Your task to perform on an android device: change notification settings in the gmail app Image 0: 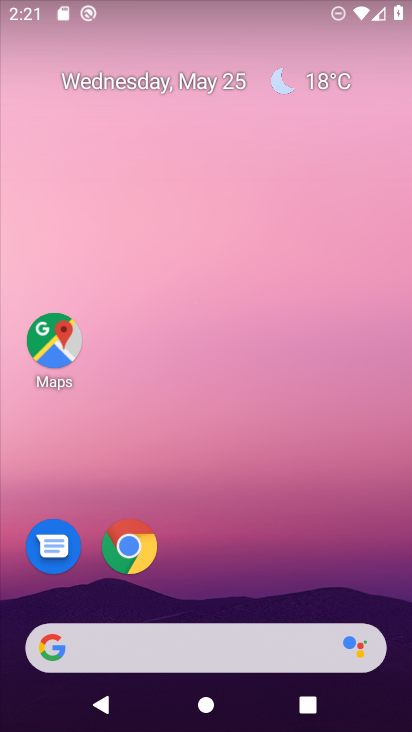
Step 0: drag from (206, 598) to (237, 3)
Your task to perform on an android device: change notification settings in the gmail app Image 1: 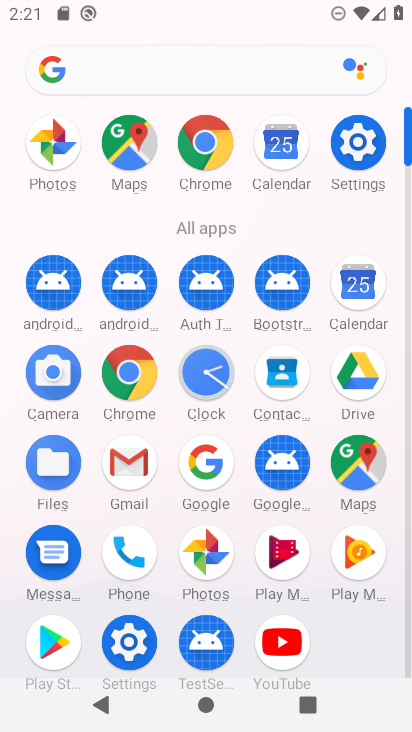
Step 1: click (130, 468)
Your task to perform on an android device: change notification settings in the gmail app Image 2: 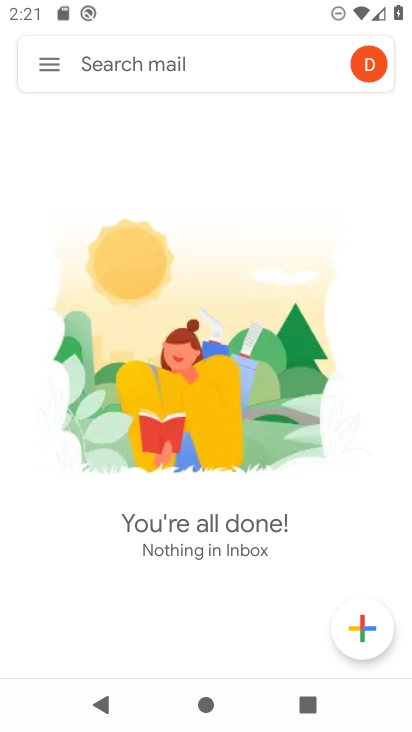
Step 2: click (40, 72)
Your task to perform on an android device: change notification settings in the gmail app Image 3: 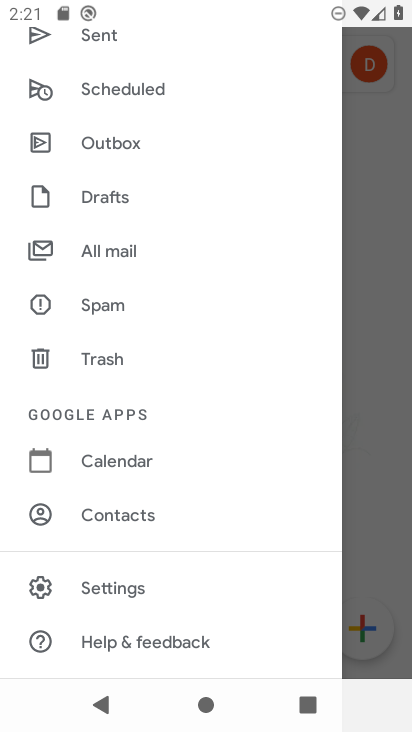
Step 3: drag from (122, 572) to (122, 304)
Your task to perform on an android device: change notification settings in the gmail app Image 4: 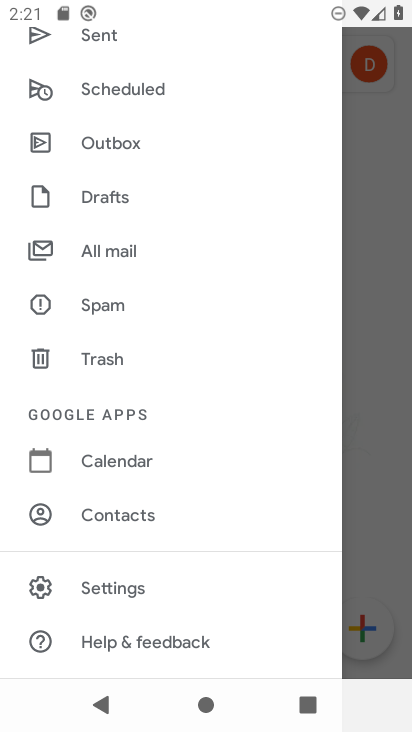
Step 4: click (107, 590)
Your task to perform on an android device: change notification settings in the gmail app Image 5: 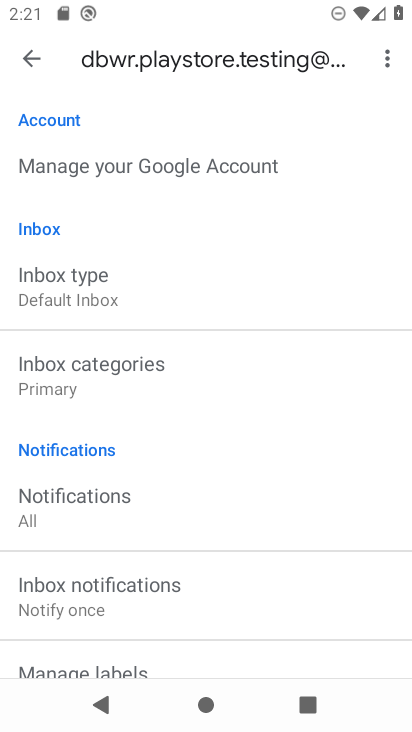
Step 5: drag from (99, 570) to (133, 341)
Your task to perform on an android device: change notification settings in the gmail app Image 6: 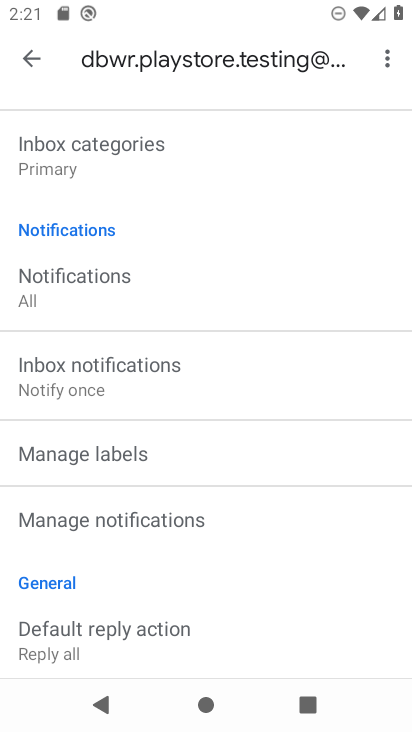
Step 6: click (28, 64)
Your task to perform on an android device: change notification settings in the gmail app Image 7: 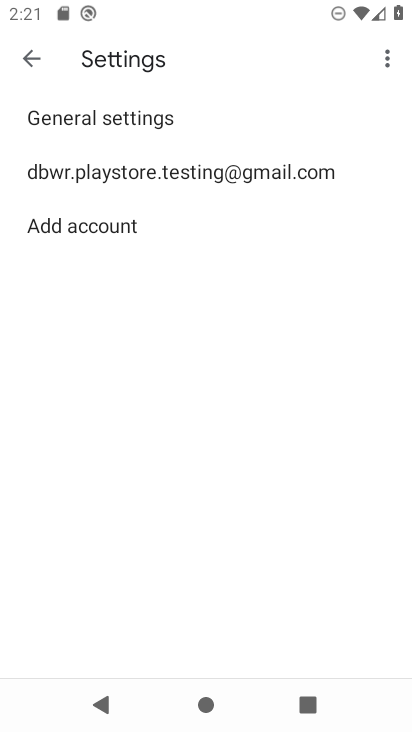
Step 7: click (118, 120)
Your task to perform on an android device: change notification settings in the gmail app Image 8: 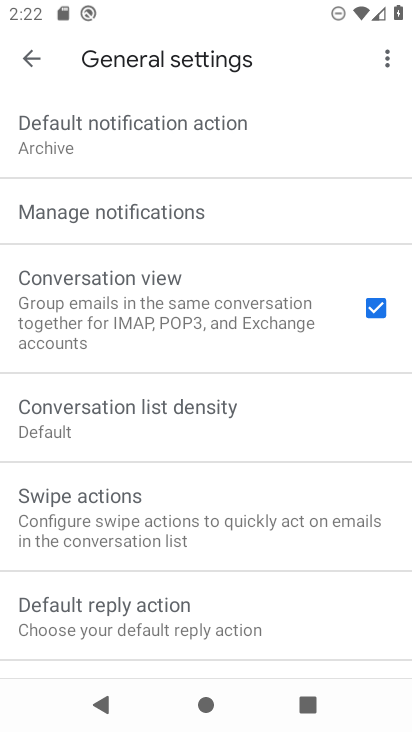
Step 8: click (110, 208)
Your task to perform on an android device: change notification settings in the gmail app Image 9: 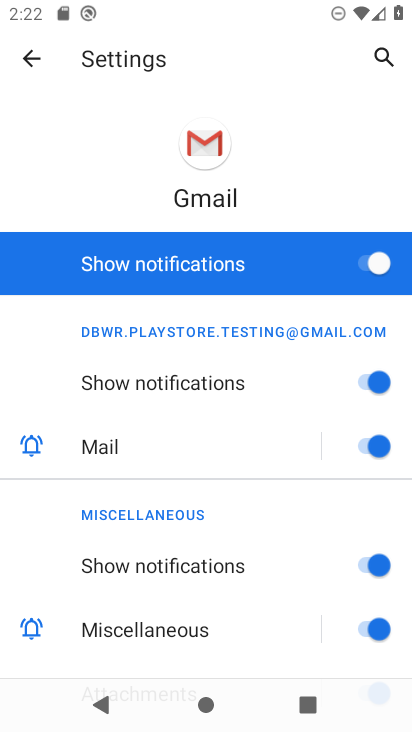
Step 9: click (342, 263)
Your task to perform on an android device: change notification settings in the gmail app Image 10: 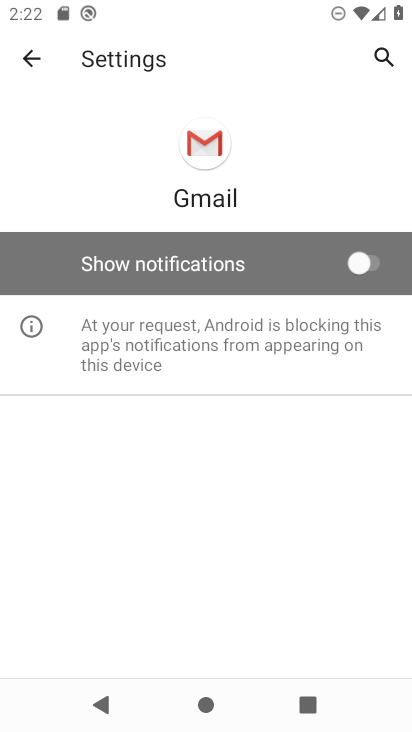
Step 10: task complete